Your task to perform on an android device: Open wifi settings Image 0: 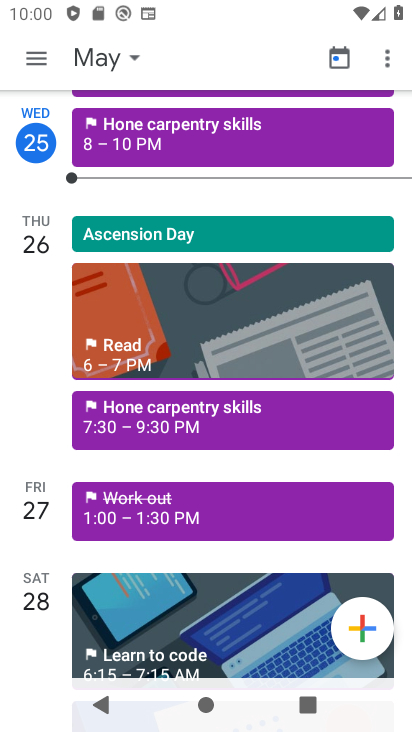
Step 0: press home button
Your task to perform on an android device: Open wifi settings Image 1: 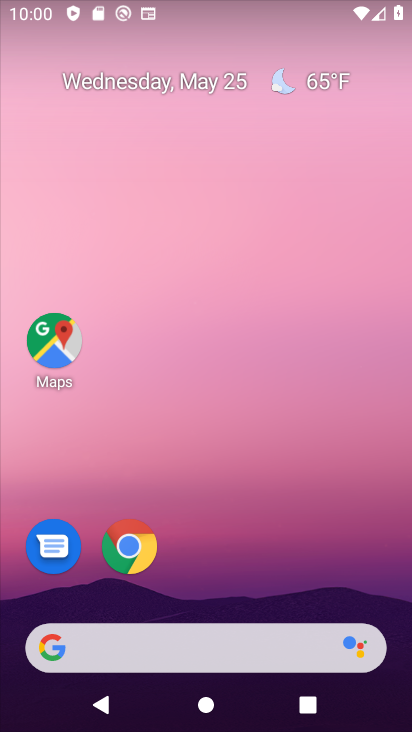
Step 1: drag from (270, 579) to (203, 2)
Your task to perform on an android device: Open wifi settings Image 2: 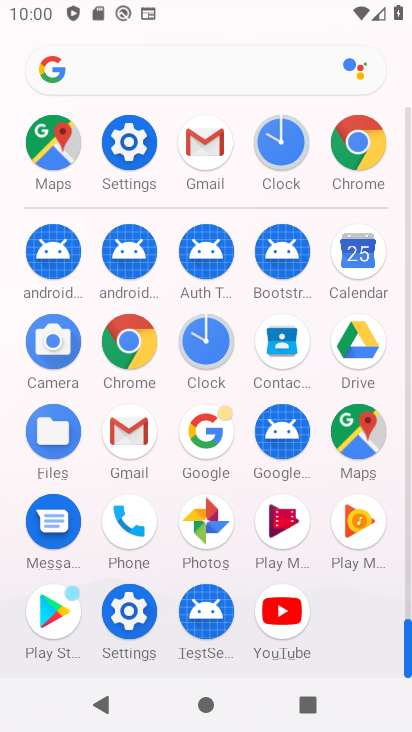
Step 2: click (127, 609)
Your task to perform on an android device: Open wifi settings Image 3: 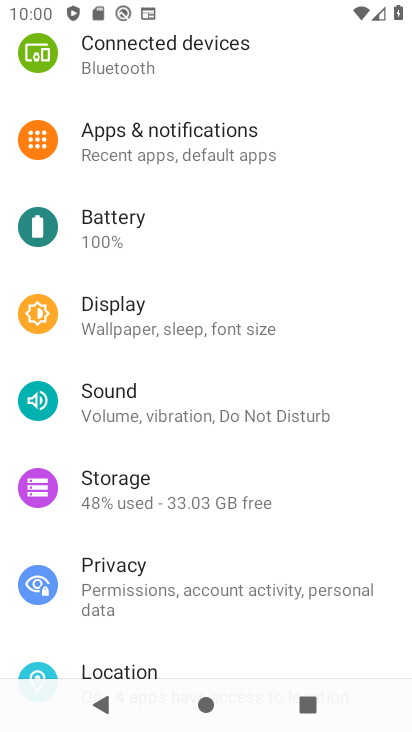
Step 3: drag from (288, 143) to (261, 635)
Your task to perform on an android device: Open wifi settings Image 4: 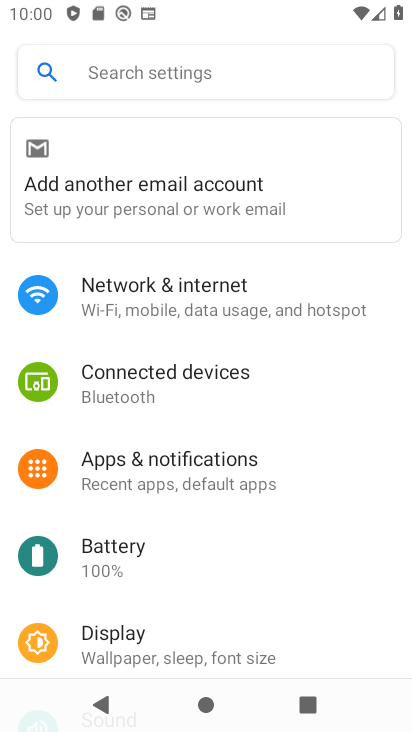
Step 4: click (253, 297)
Your task to perform on an android device: Open wifi settings Image 5: 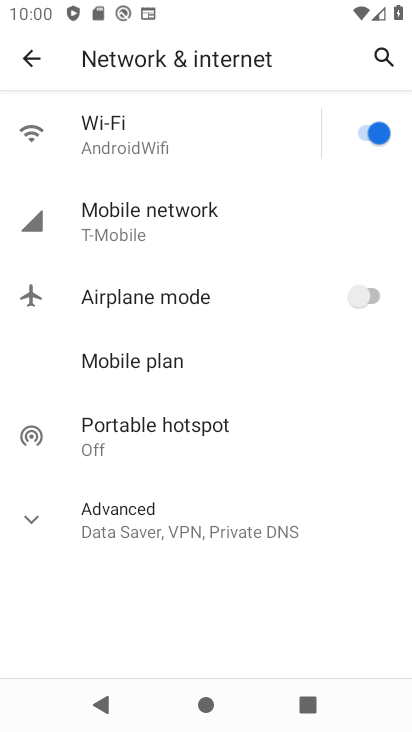
Step 5: click (160, 131)
Your task to perform on an android device: Open wifi settings Image 6: 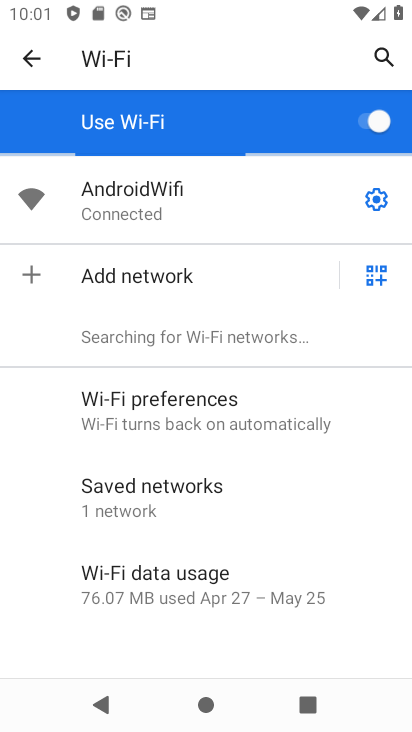
Step 6: task complete